Your task to perform on an android device: change the clock display to digital Image 0: 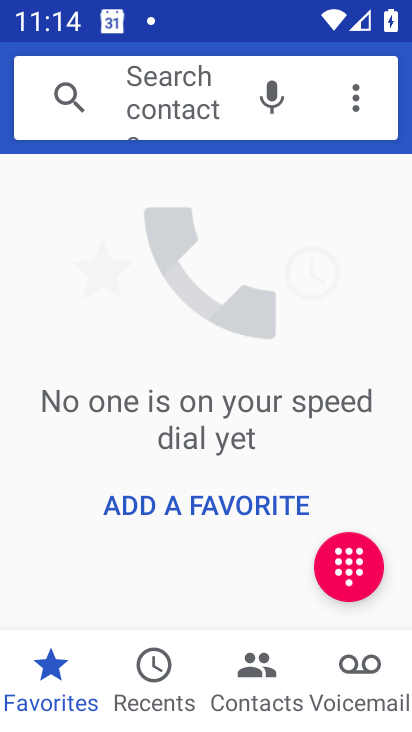
Step 0: press home button
Your task to perform on an android device: change the clock display to digital Image 1: 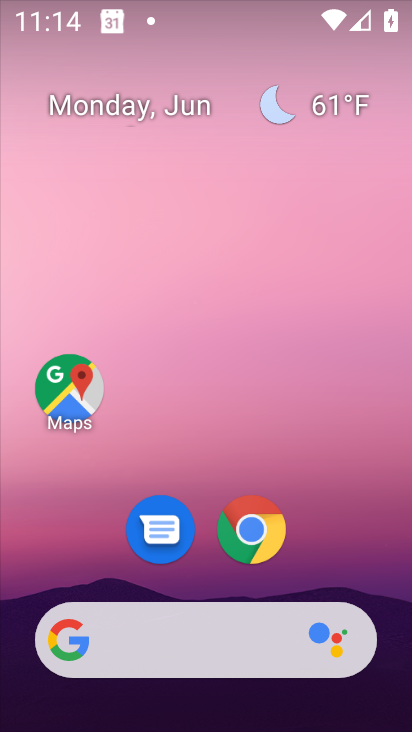
Step 1: drag from (66, 578) to (204, 200)
Your task to perform on an android device: change the clock display to digital Image 2: 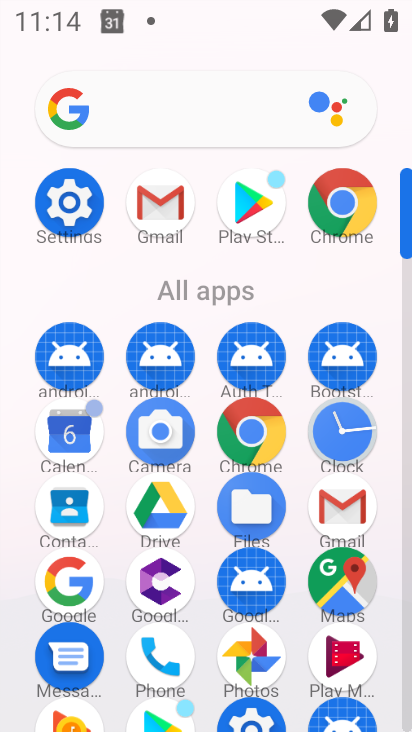
Step 2: click (350, 427)
Your task to perform on an android device: change the clock display to digital Image 3: 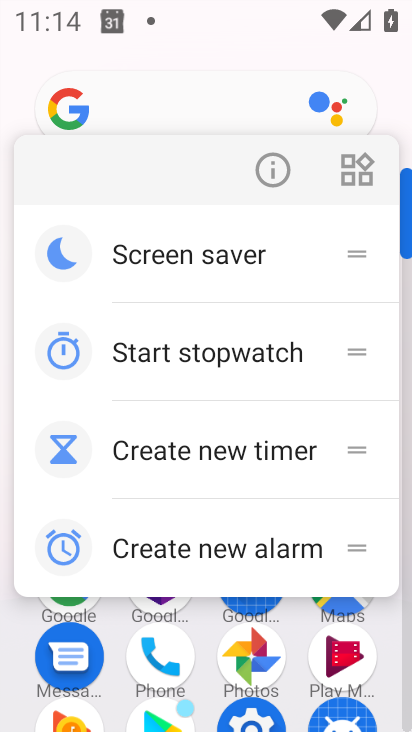
Step 3: press back button
Your task to perform on an android device: change the clock display to digital Image 4: 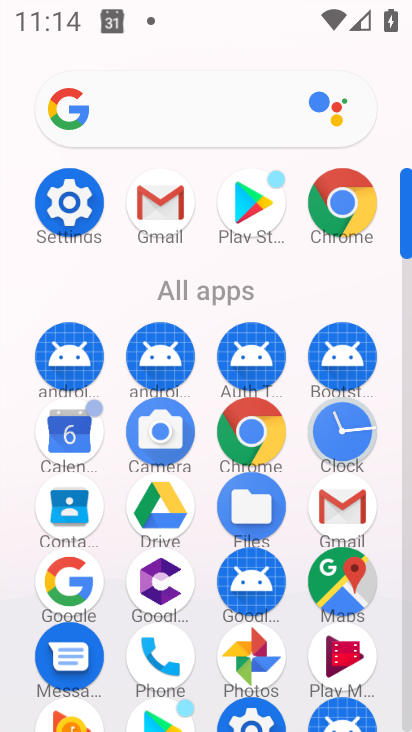
Step 4: click (344, 451)
Your task to perform on an android device: change the clock display to digital Image 5: 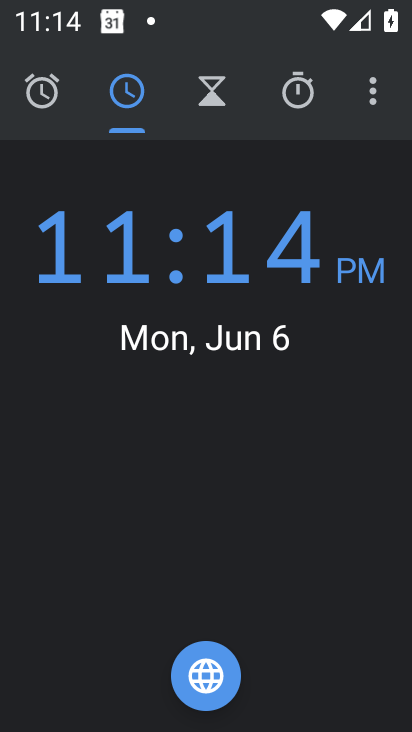
Step 5: click (378, 66)
Your task to perform on an android device: change the clock display to digital Image 6: 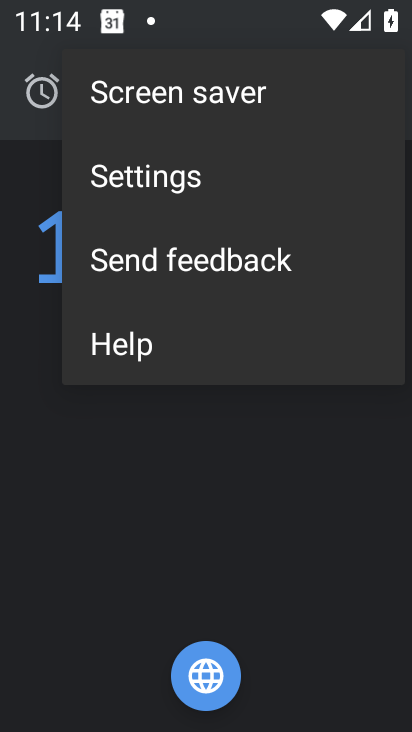
Step 6: click (264, 187)
Your task to perform on an android device: change the clock display to digital Image 7: 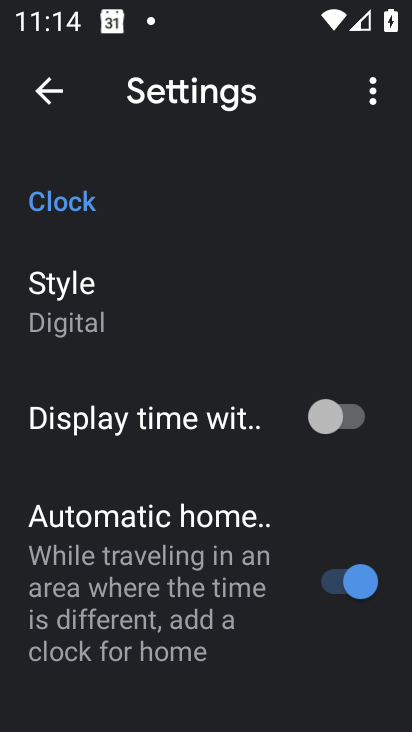
Step 7: task complete